Your task to perform on an android device: add a contact in the contacts app Image 0: 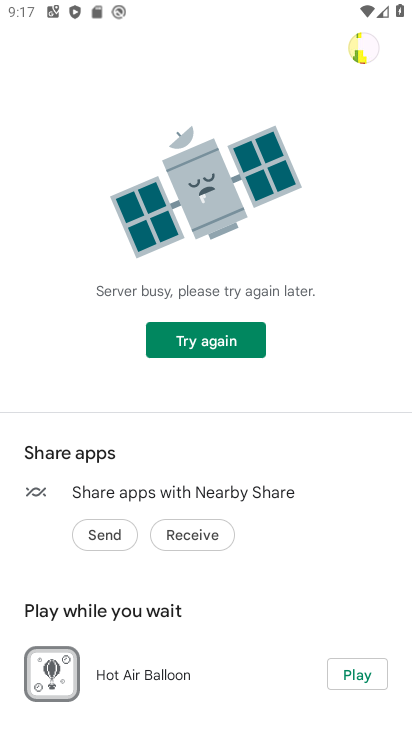
Step 0: press home button
Your task to perform on an android device: add a contact in the contacts app Image 1: 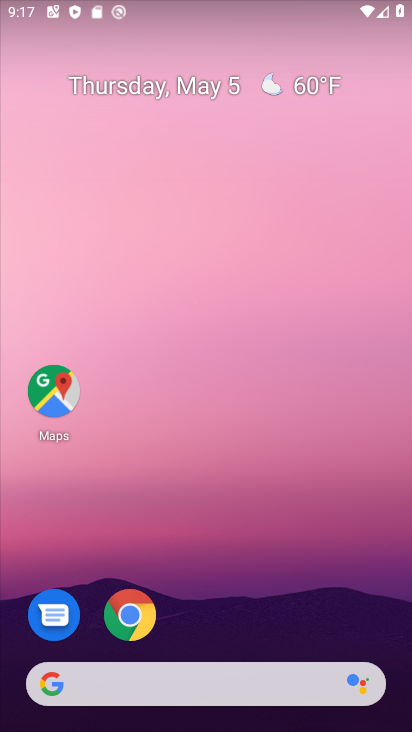
Step 1: drag from (241, 616) to (304, 149)
Your task to perform on an android device: add a contact in the contacts app Image 2: 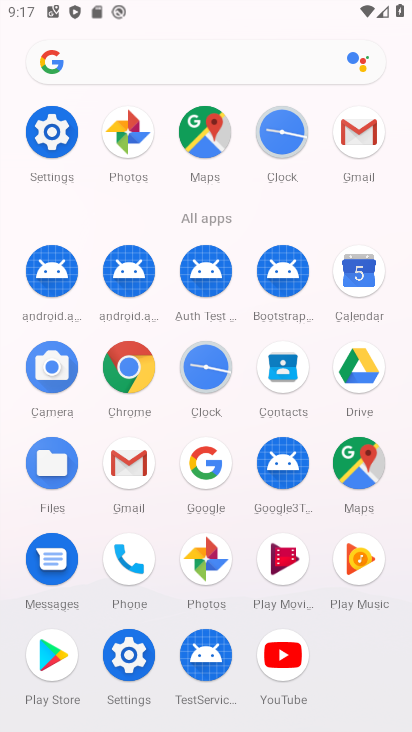
Step 2: click (281, 372)
Your task to perform on an android device: add a contact in the contacts app Image 3: 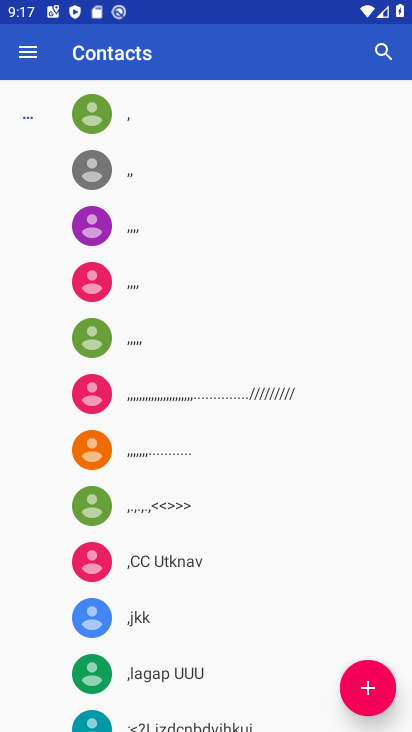
Step 3: click (379, 684)
Your task to perform on an android device: add a contact in the contacts app Image 4: 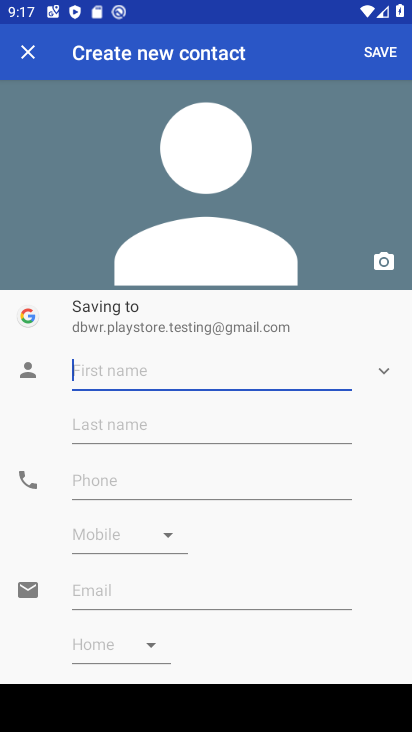
Step 4: type "wef"
Your task to perform on an android device: add a contact in the contacts app Image 5: 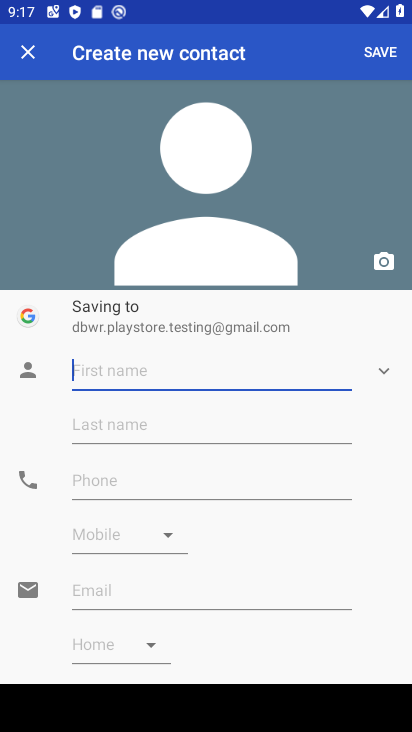
Step 5: click (372, 56)
Your task to perform on an android device: add a contact in the contacts app Image 6: 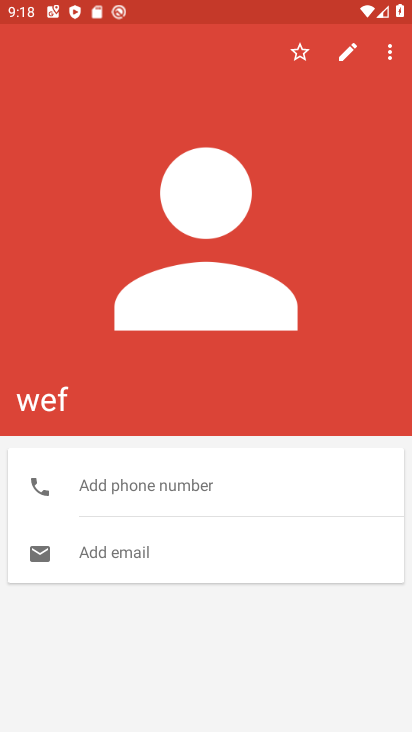
Step 6: task complete